Your task to perform on an android device: Open sound settings Image 0: 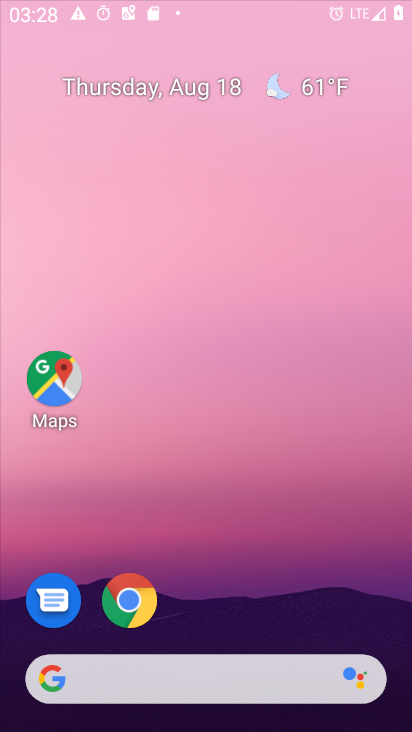
Step 0: press home button
Your task to perform on an android device: Open sound settings Image 1: 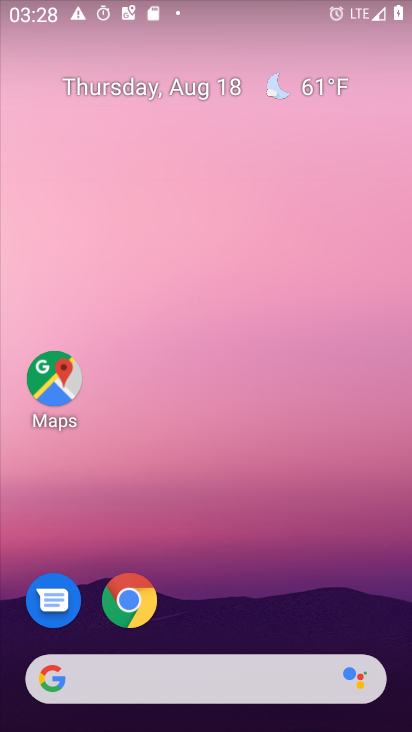
Step 1: drag from (271, 621) to (406, 143)
Your task to perform on an android device: Open sound settings Image 2: 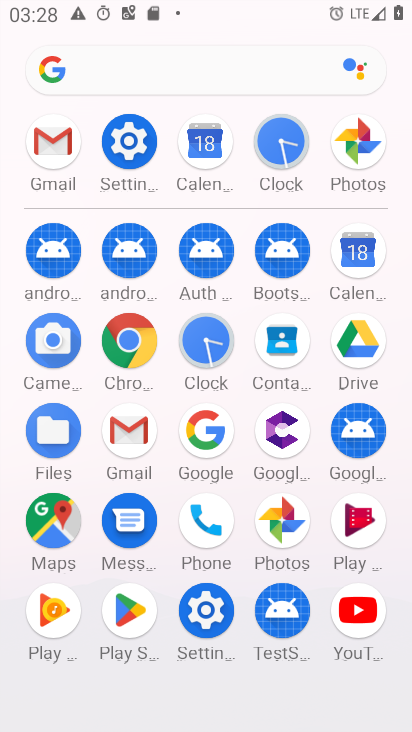
Step 2: click (139, 144)
Your task to perform on an android device: Open sound settings Image 3: 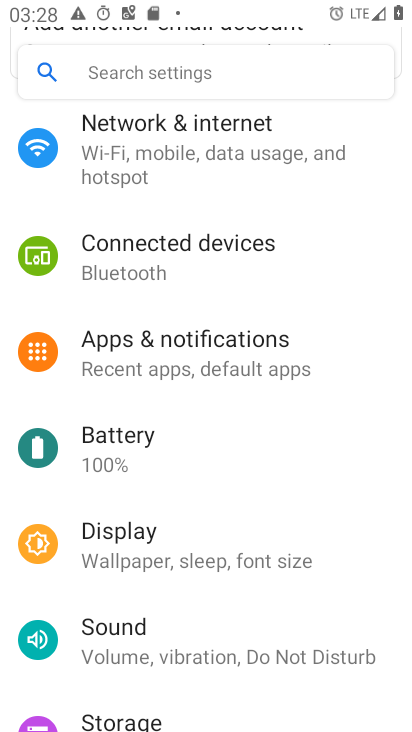
Step 3: click (117, 630)
Your task to perform on an android device: Open sound settings Image 4: 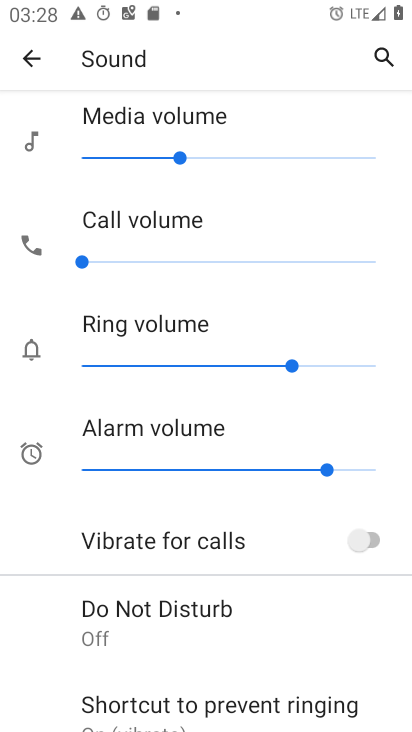
Step 4: task complete